Your task to perform on an android device: check battery use Image 0: 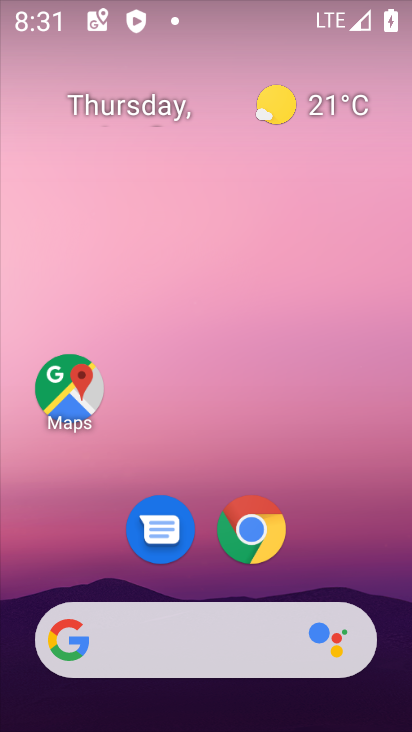
Step 0: drag from (259, 721) to (206, 17)
Your task to perform on an android device: check battery use Image 1: 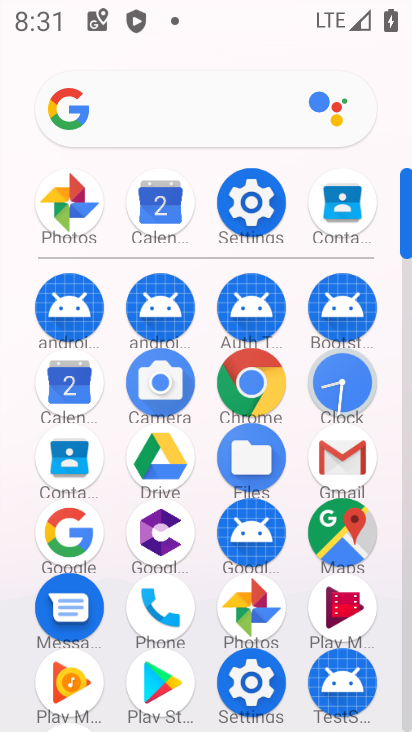
Step 1: click (256, 201)
Your task to perform on an android device: check battery use Image 2: 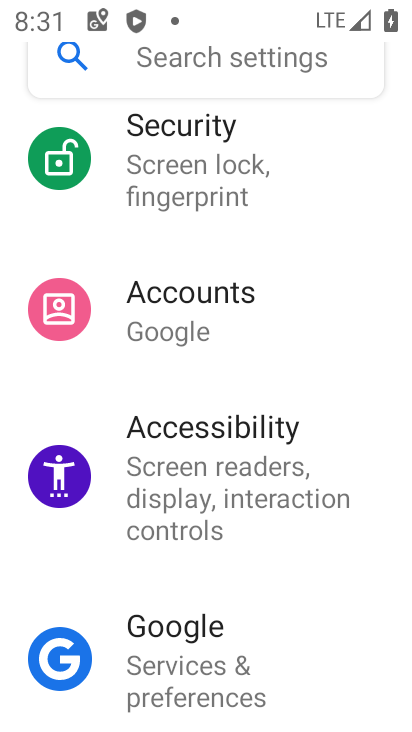
Step 2: drag from (336, 199) to (263, 578)
Your task to perform on an android device: check battery use Image 3: 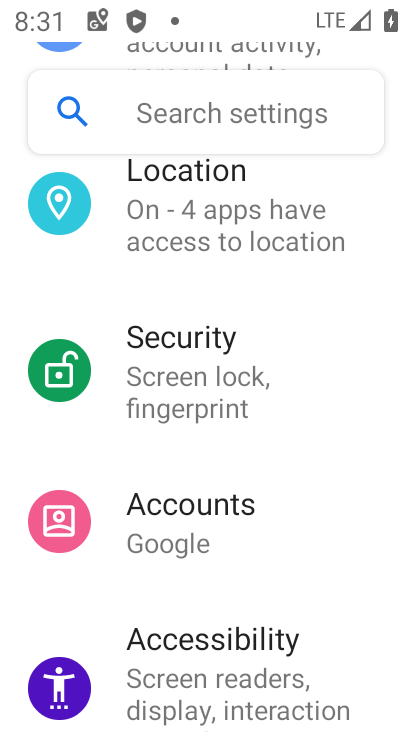
Step 3: drag from (329, 269) to (109, 726)
Your task to perform on an android device: check battery use Image 4: 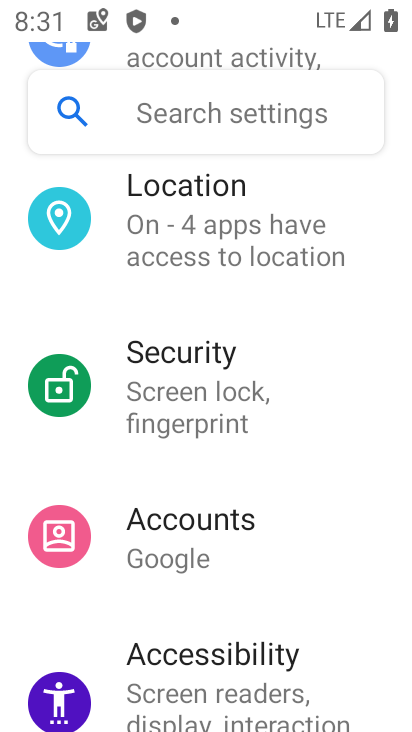
Step 4: drag from (317, 249) to (200, 707)
Your task to perform on an android device: check battery use Image 5: 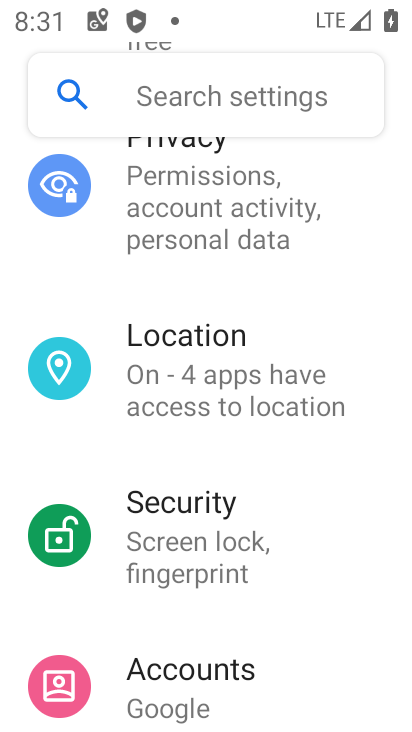
Step 5: drag from (336, 249) to (224, 729)
Your task to perform on an android device: check battery use Image 6: 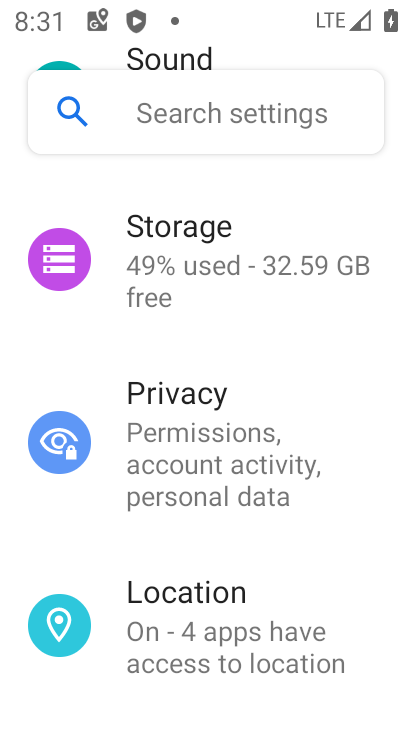
Step 6: drag from (301, 196) to (134, 702)
Your task to perform on an android device: check battery use Image 7: 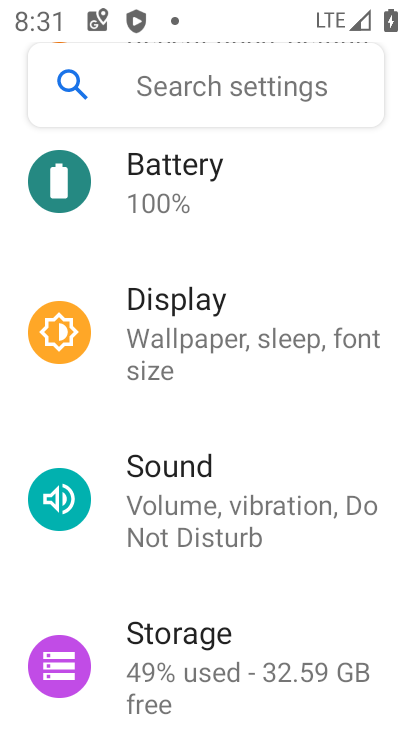
Step 7: click (172, 216)
Your task to perform on an android device: check battery use Image 8: 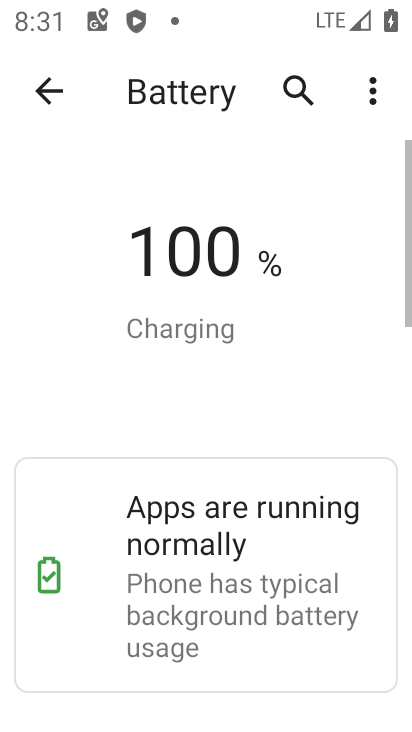
Step 8: click (373, 90)
Your task to perform on an android device: check battery use Image 9: 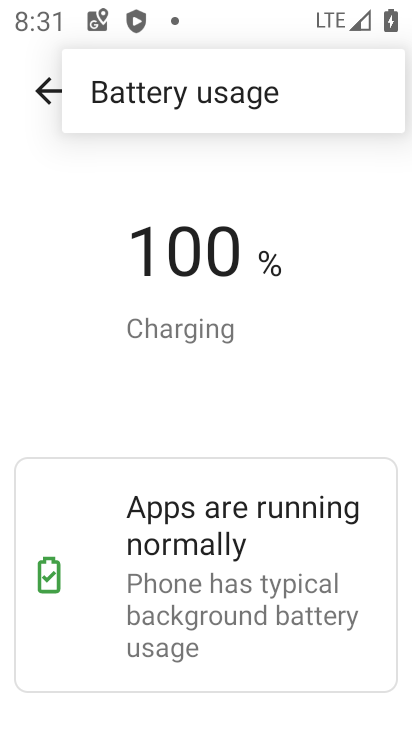
Step 9: click (241, 94)
Your task to perform on an android device: check battery use Image 10: 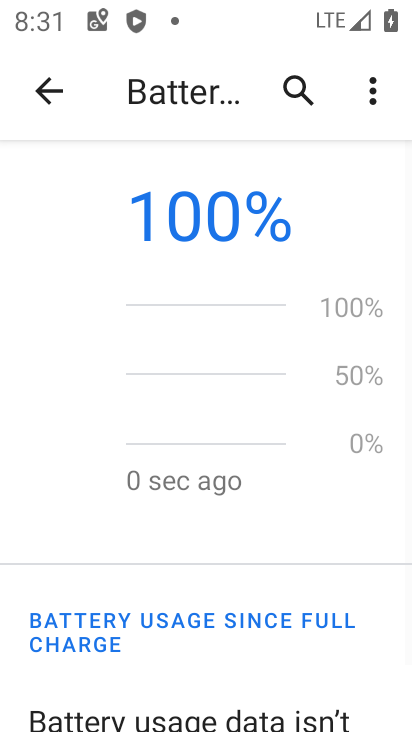
Step 10: task complete